Your task to perform on an android device: check android version Image 0: 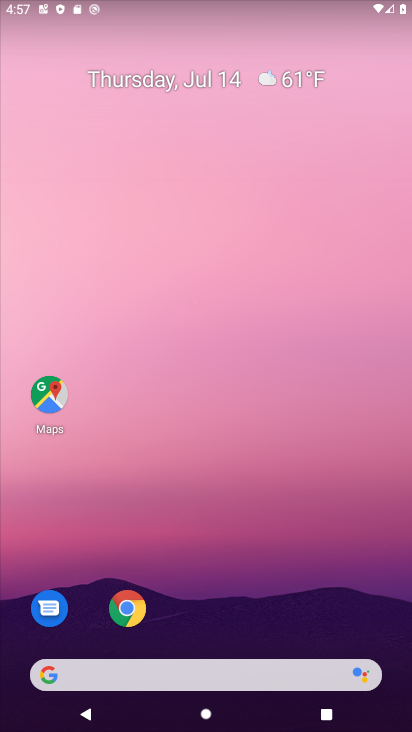
Step 0: drag from (366, 610) to (272, 59)
Your task to perform on an android device: check android version Image 1: 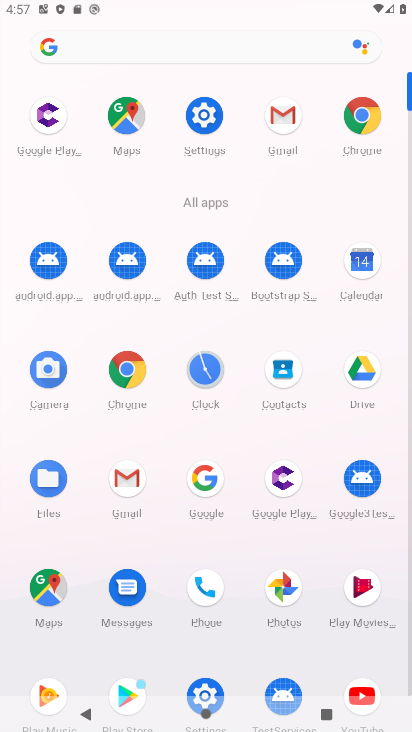
Step 1: click (214, 111)
Your task to perform on an android device: check android version Image 2: 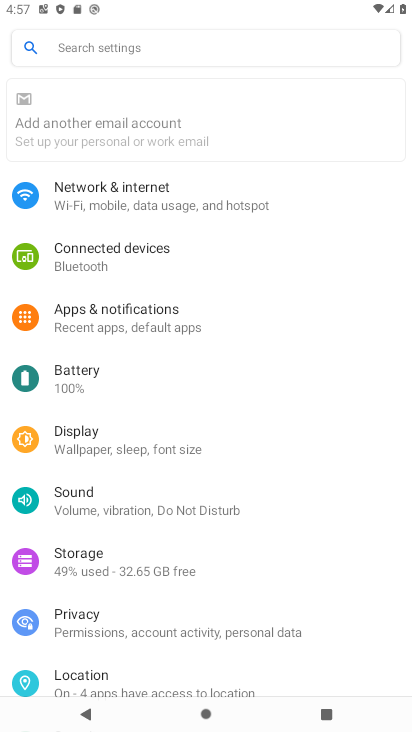
Step 2: drag from (243, 684) to (299, 65)
Your task to perform on an android device: check android version Image 3: 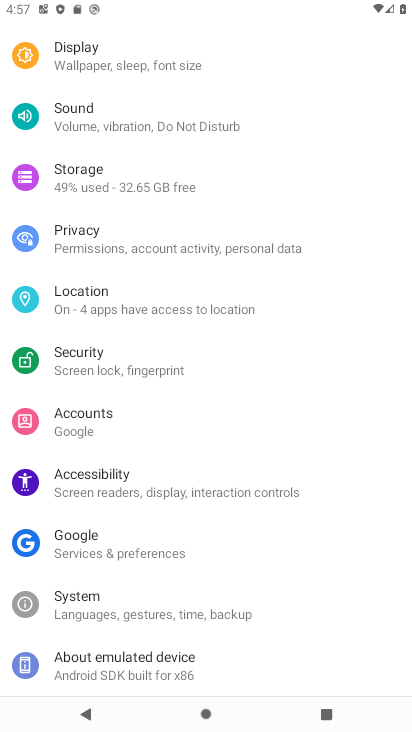
Step 3: click (129, 677)
Your task to perform on an android device: check android version Image 4: 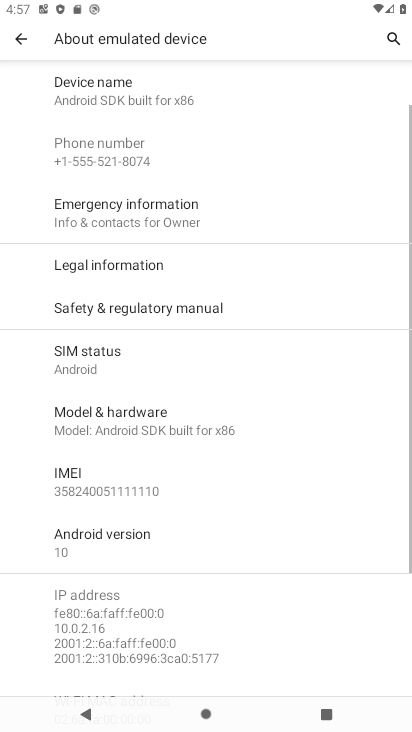
Step 4: click (96, 535)
Your task to perform on an android device: check android version Image 5: 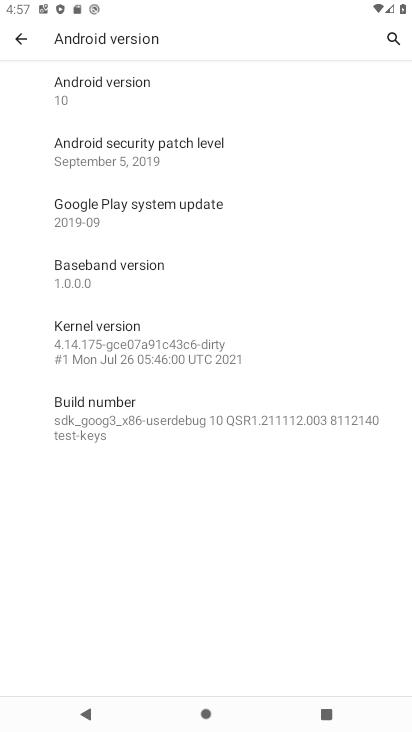
Step 5: task complete